Your task to perform on an android device: Go to Google Image 0: 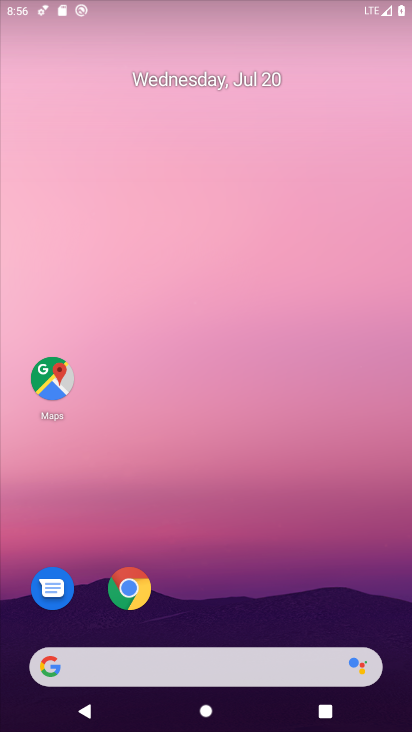
Step 0: press home button
Your task to perform on an android device: Go to Google Image 1: 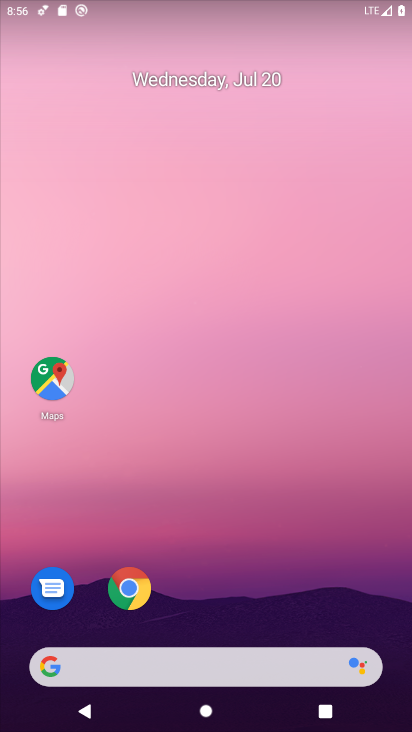
Step 1: drag from (217, 613) to (217, 62)
Your task to perform on an android device: Go to Google Image 2: 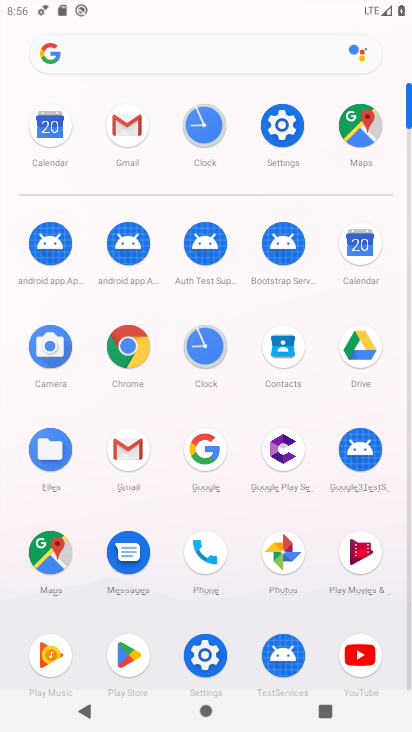
Step 2: click (204, 441)
Your task to perform on an android device: Go to Google Image 3: 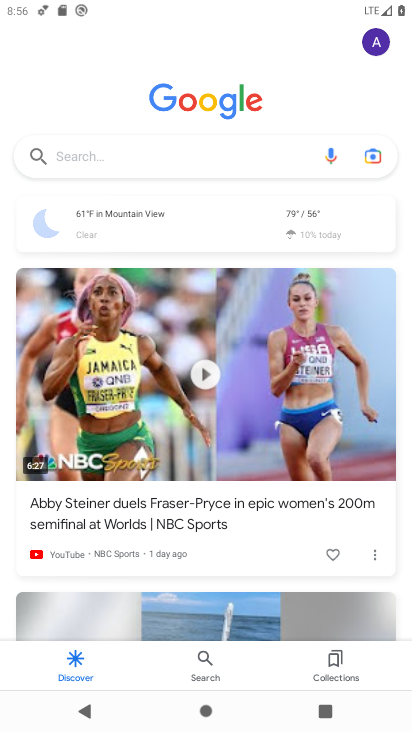
Step 3: click (76, 153)
Your task to perform on an android device: Go to Google Image 4: 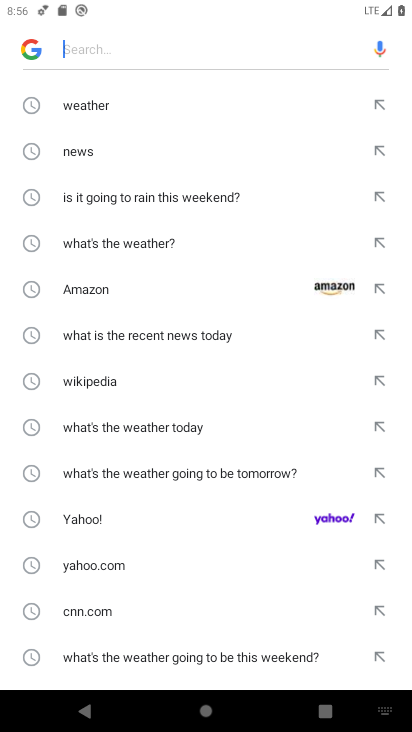
Step 4: press back button
Your task to perform on an android device: Go to Google Image 5: 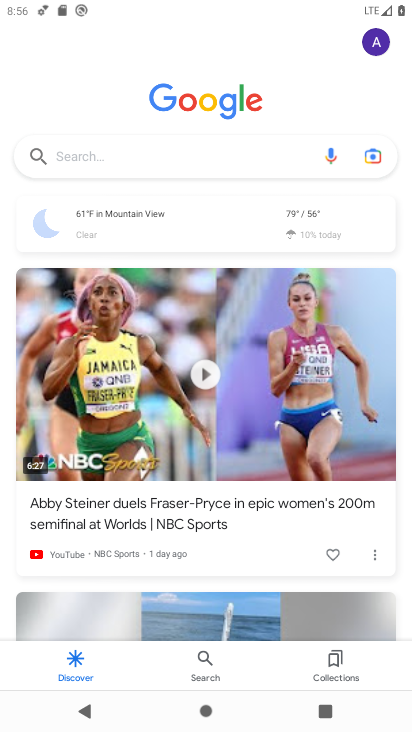
Step 5: click (335, 662)
Your task to perform on an android device: Go to Google Image 6: 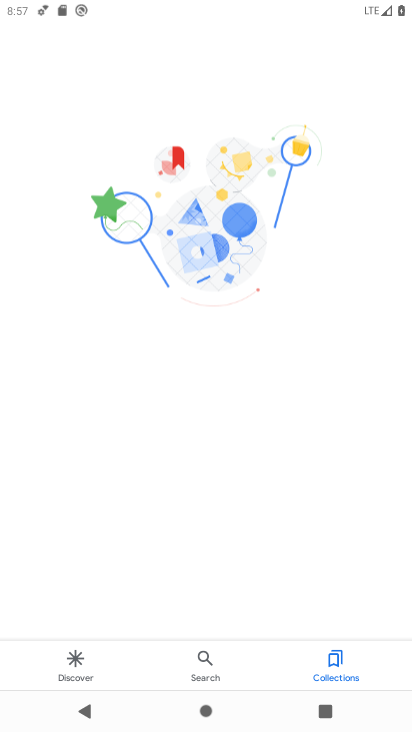
Step 6: task complete